Your task to perform on an android device: Open settings on Google Maps Image 0: 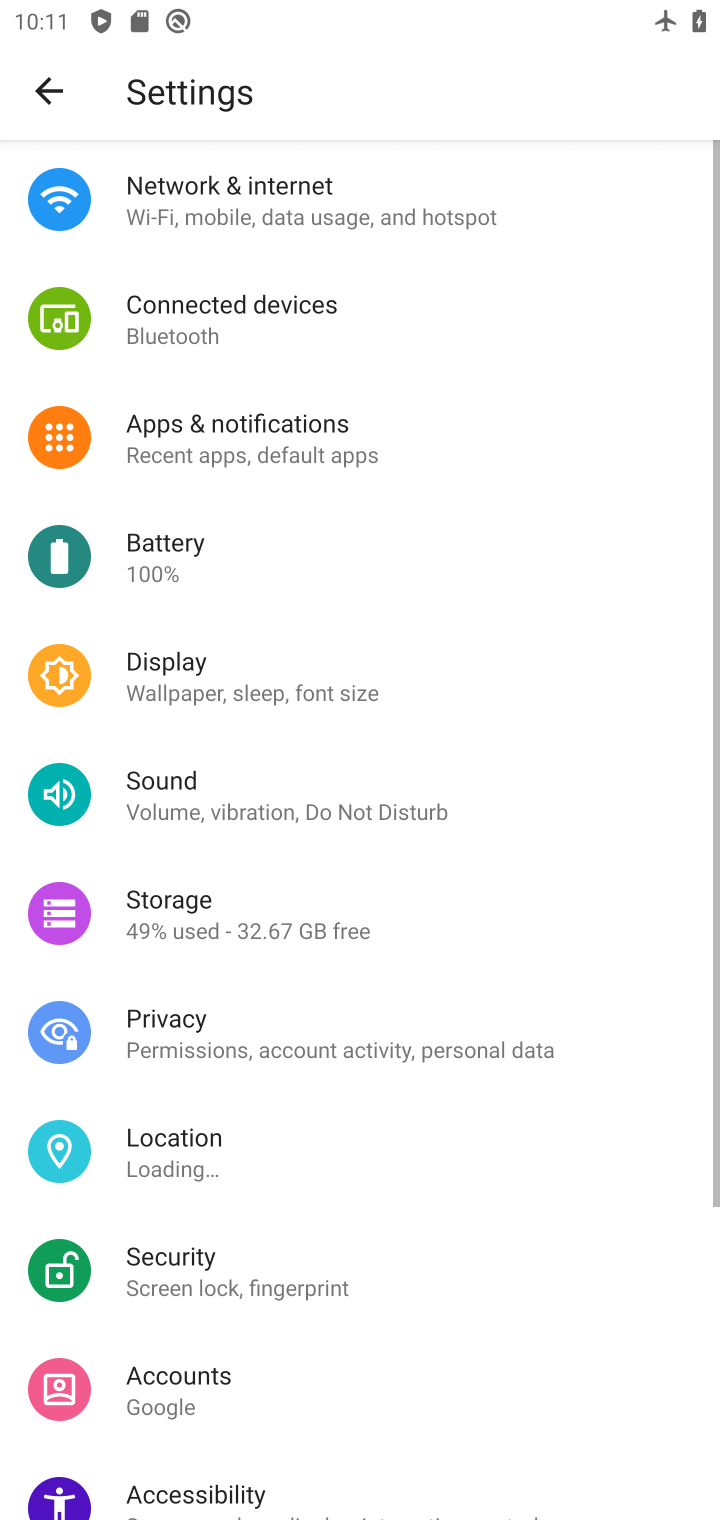
Step 0: drag from (371, 1306) to (516, 541)
Your task to perform on an android device: Open settings on Google Maps Image 1: 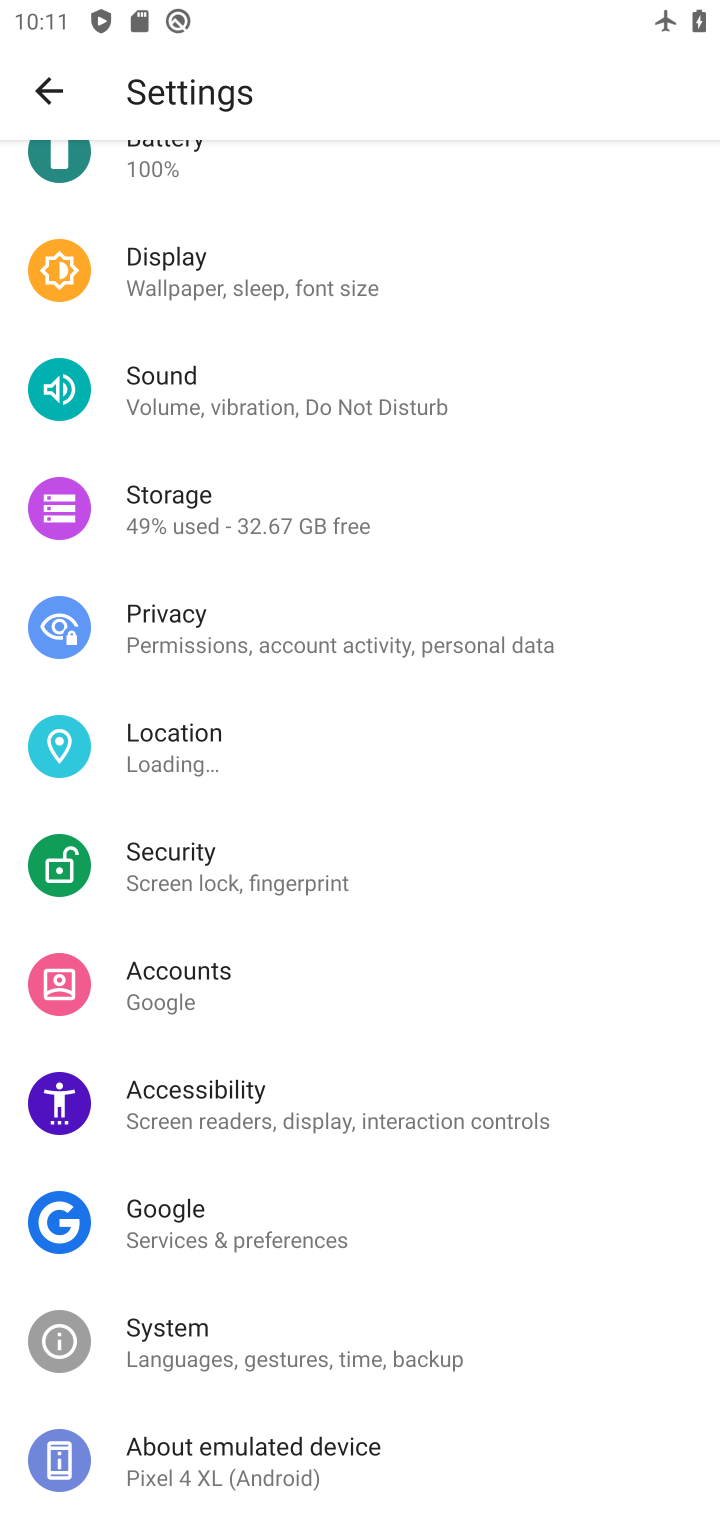
Step 1: press home button
Your task to perform on an android device: Open settings on Google Maps Image 2: 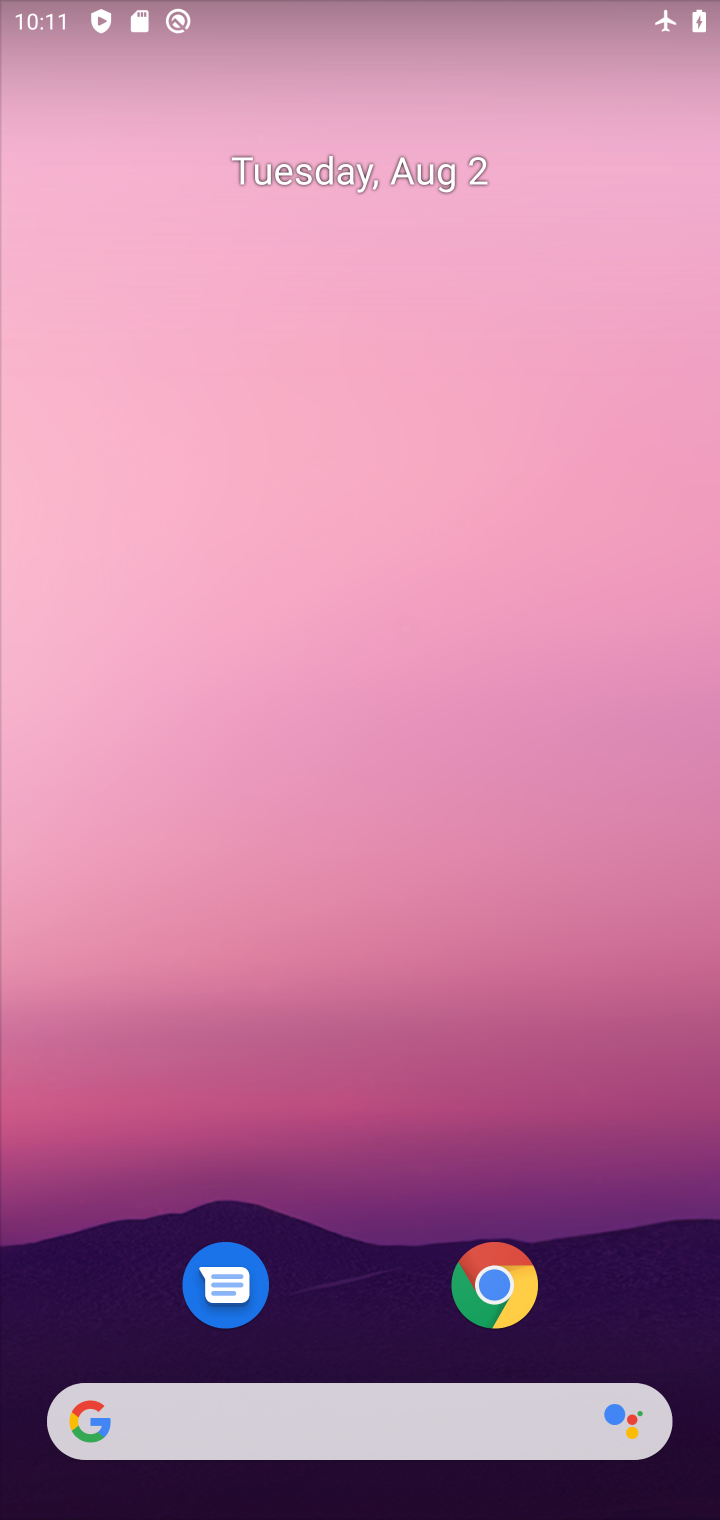
Step 2: drag from (381, 1253) to (583, 272)
Your task to perform on an android device: Open settings on Google Maps Image 3: 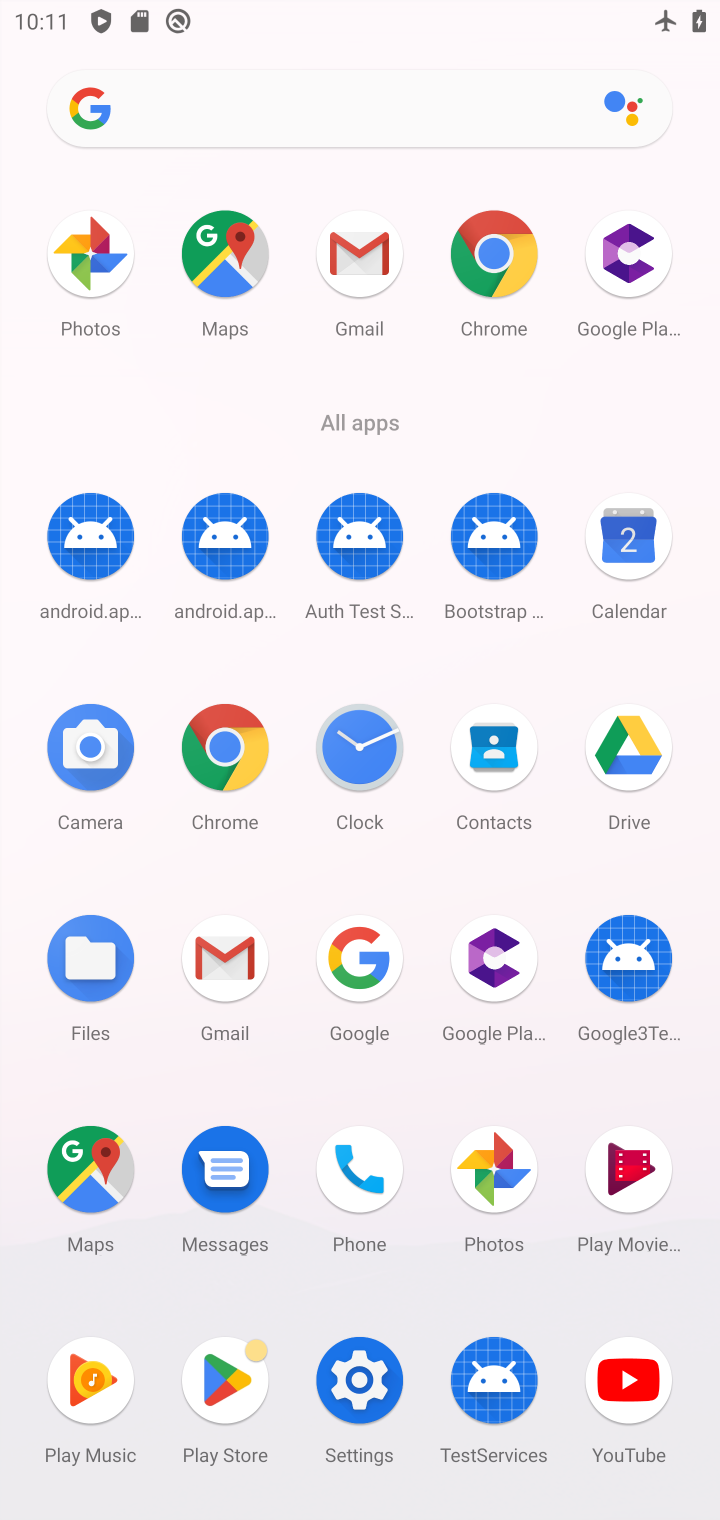
Step 3: click (44, 1170)
Your task to perform on an android device: Open settings on Google Maps Image 4: 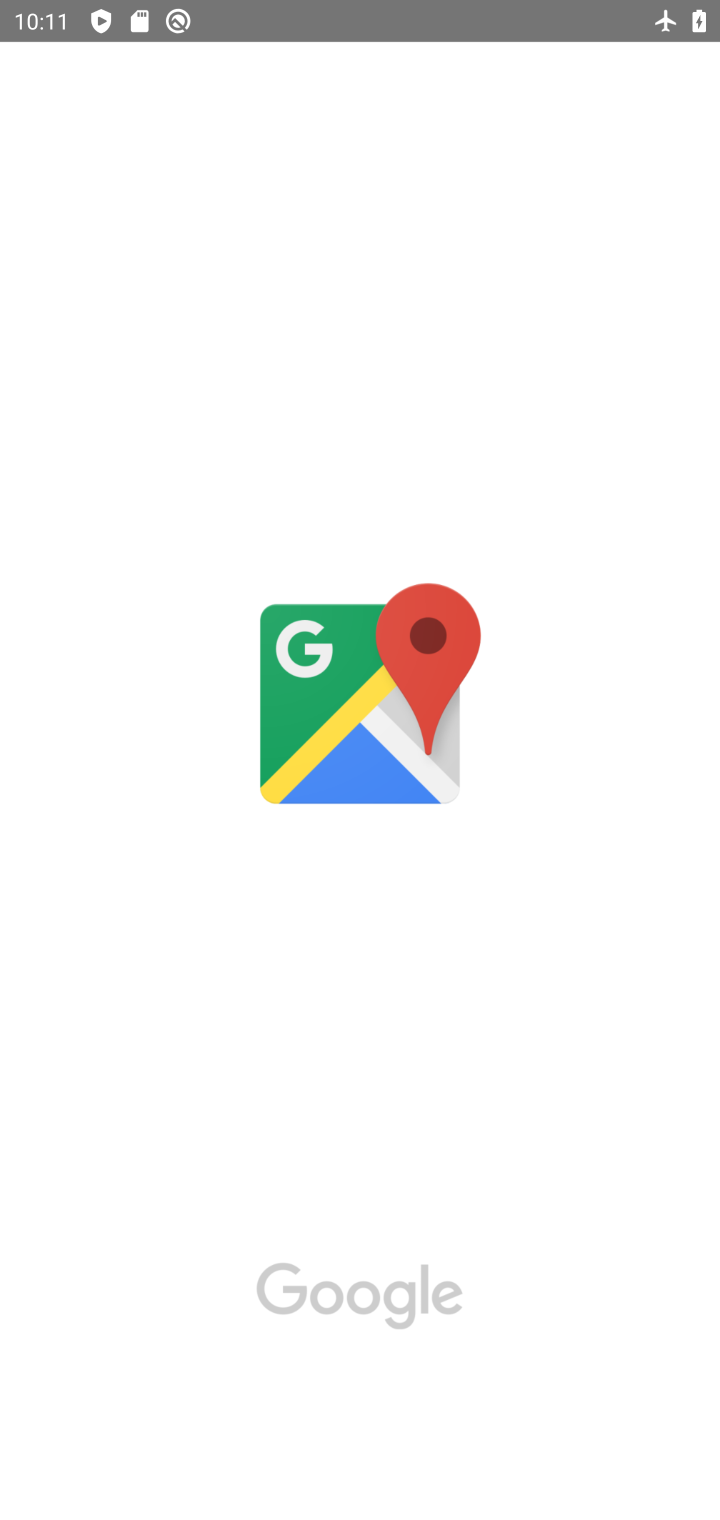
Step 4: drag from (450, 1049) to (511, 212)
Your task to perform on an android device: Open settings on Google Maps Image 5: 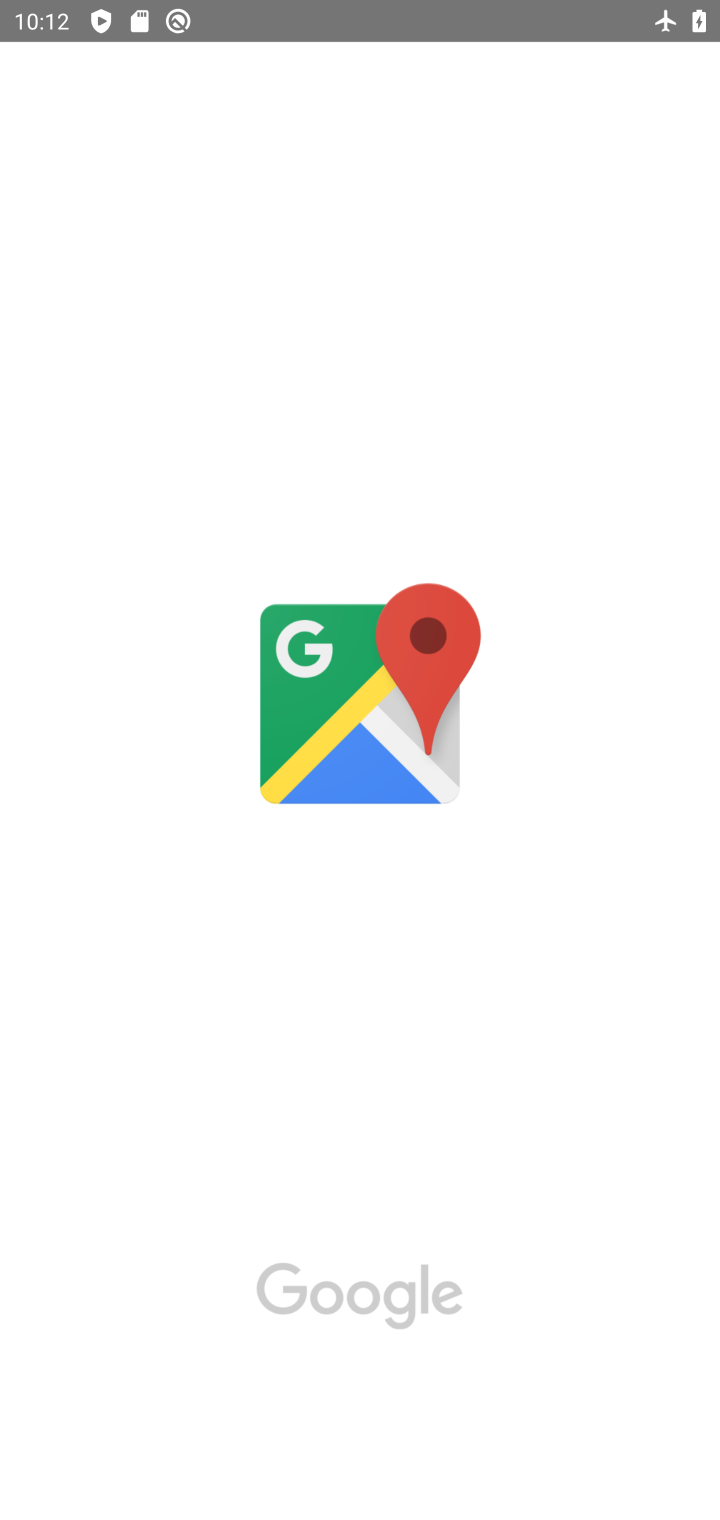
Step 5: drag from (400, 1151) to (408, 690)
Your task to perform on an android device: Open settings on Google Maps Image 6: 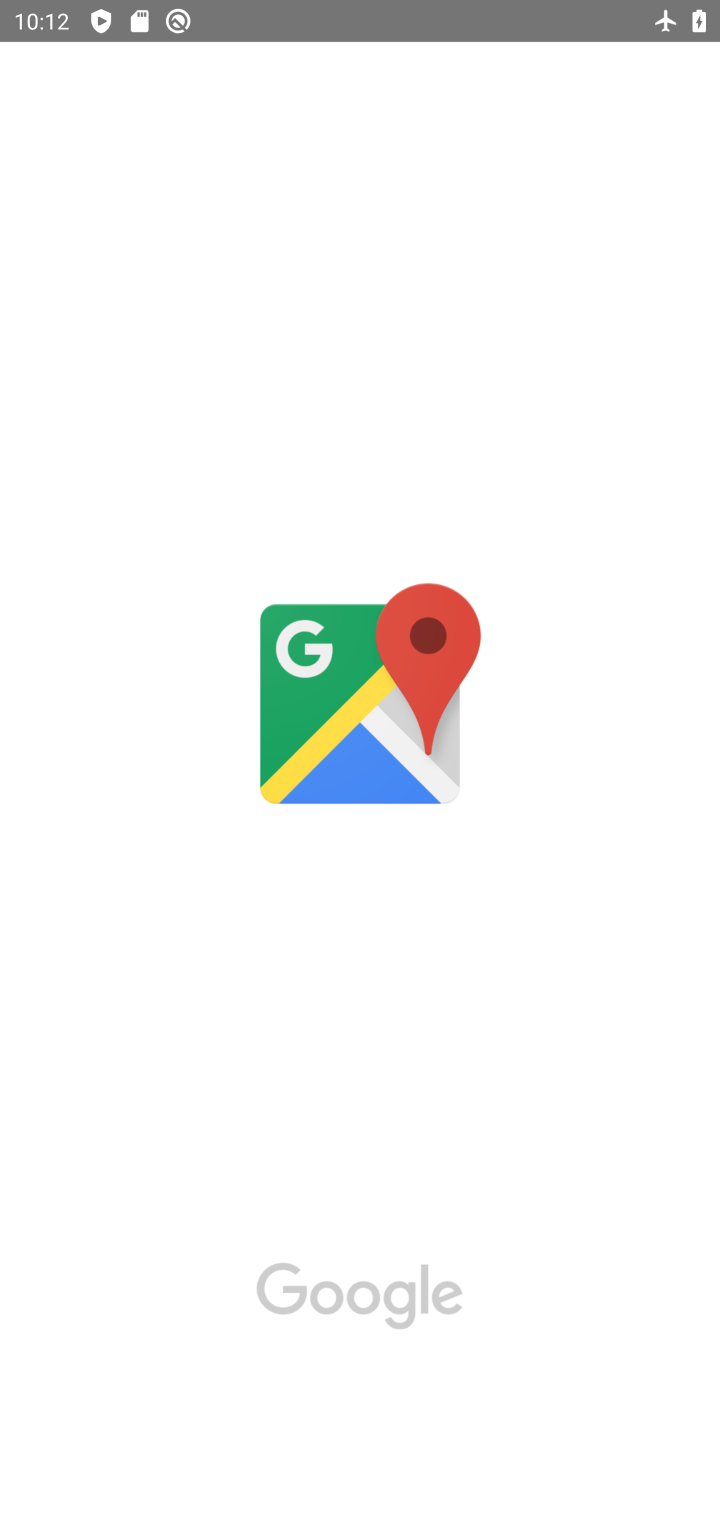
Step 6: drag from (437, 908) to (348, 546)
Your task to perform on an android device: Open settings on Google Maps Image 7: 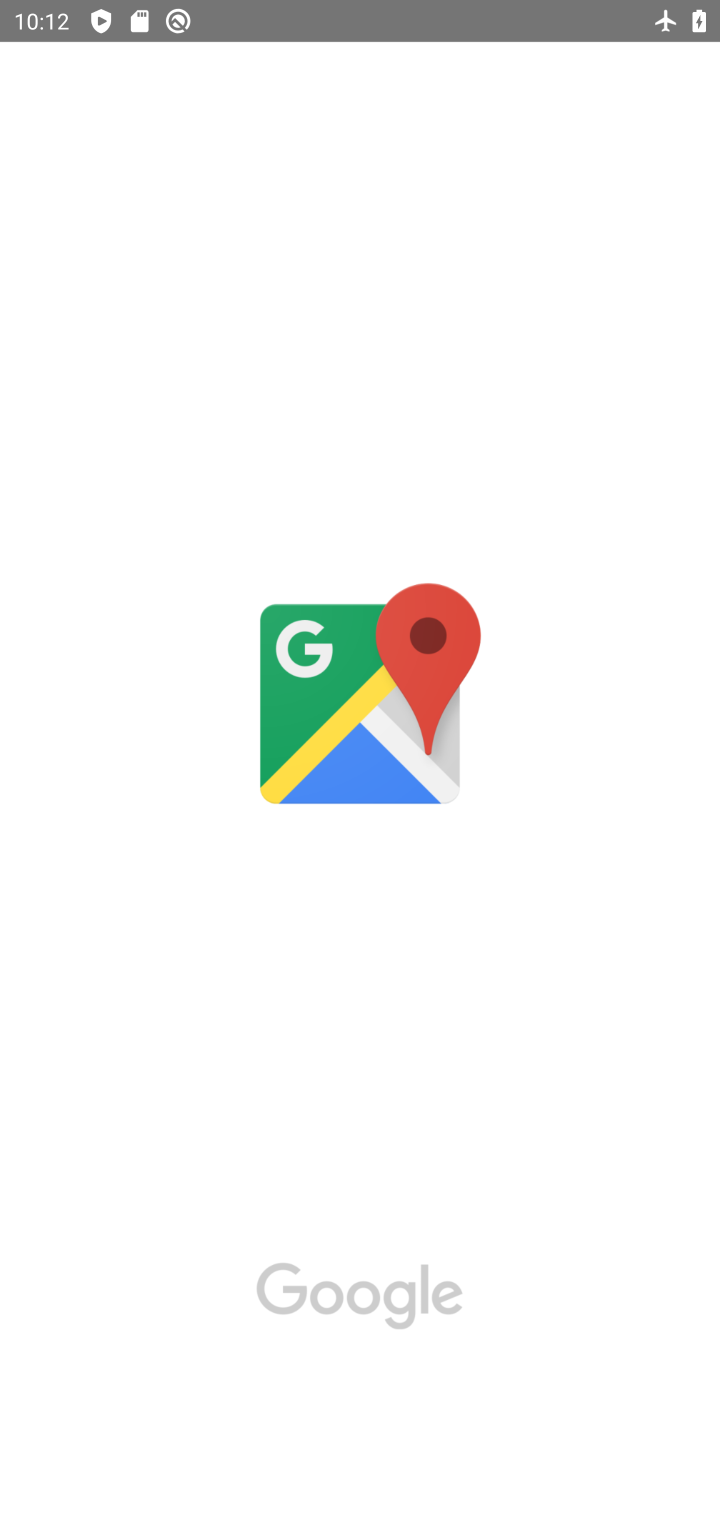
Step 7: drag from (428, 1191) to (434, 707)
Your task to perform on an android device: Open settings on Google Maps Image 8: 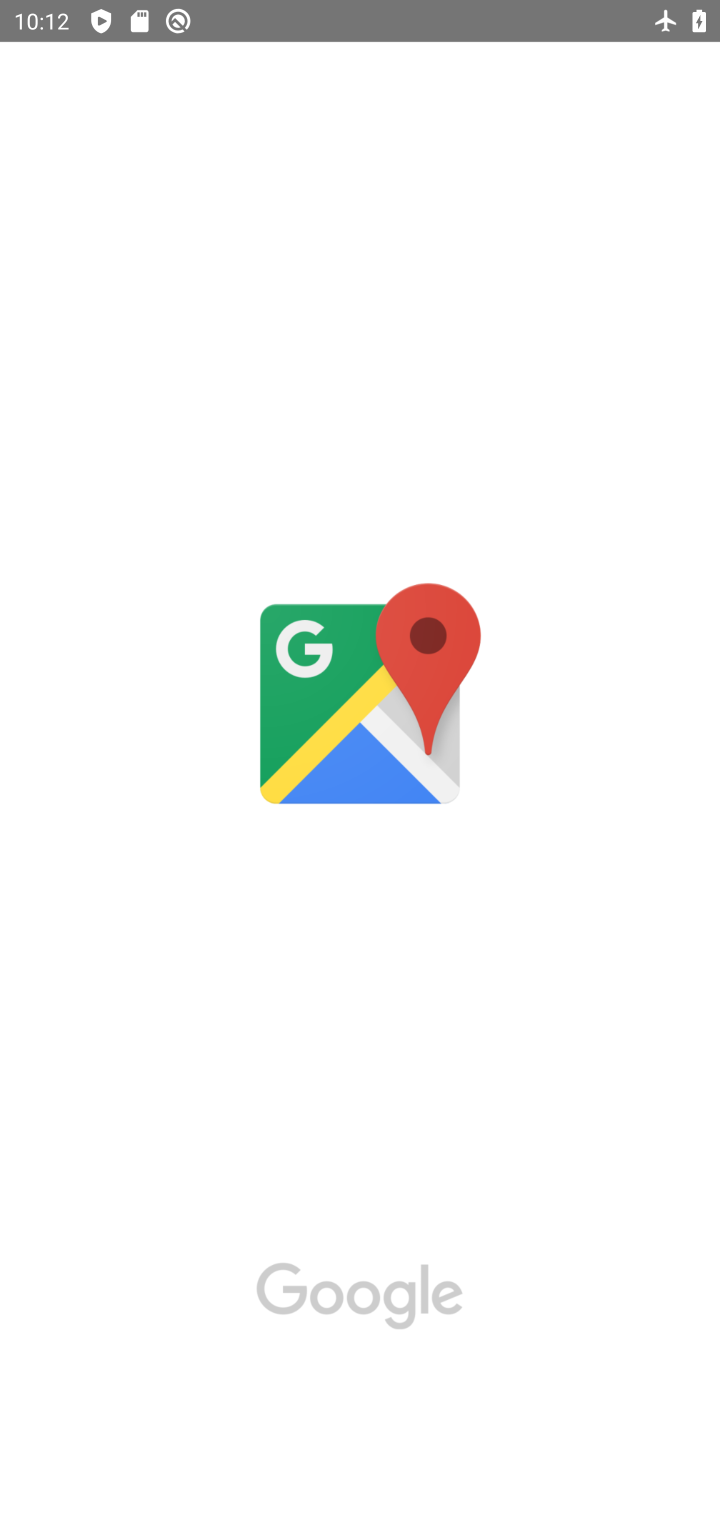
Step 8: click (412, 488)
Your task to perform on an android device: Open settings on Google Maps Image 9: 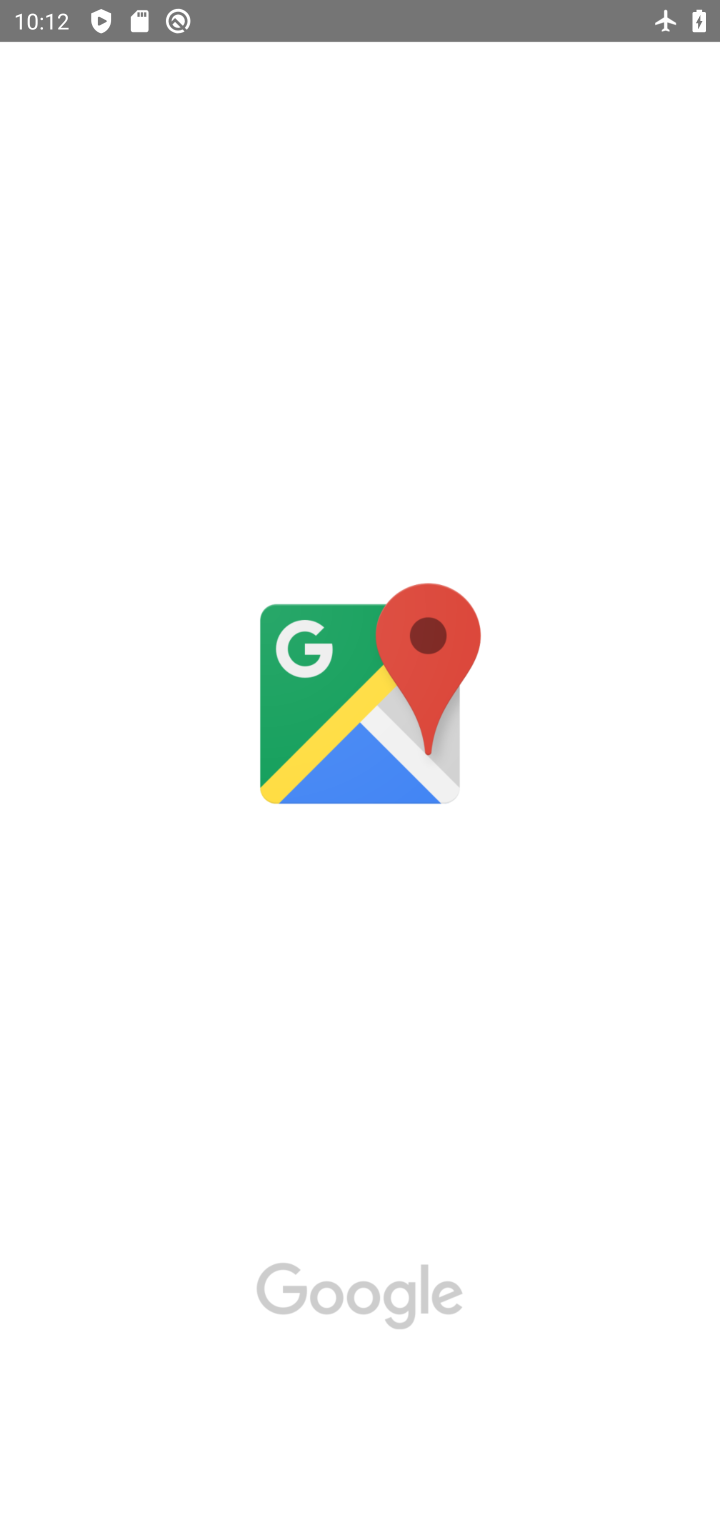
Step 9: drag from (284, 1288) to (444, 511)
Your task to perform on an android device: Open settings on Google Maps Image 10: 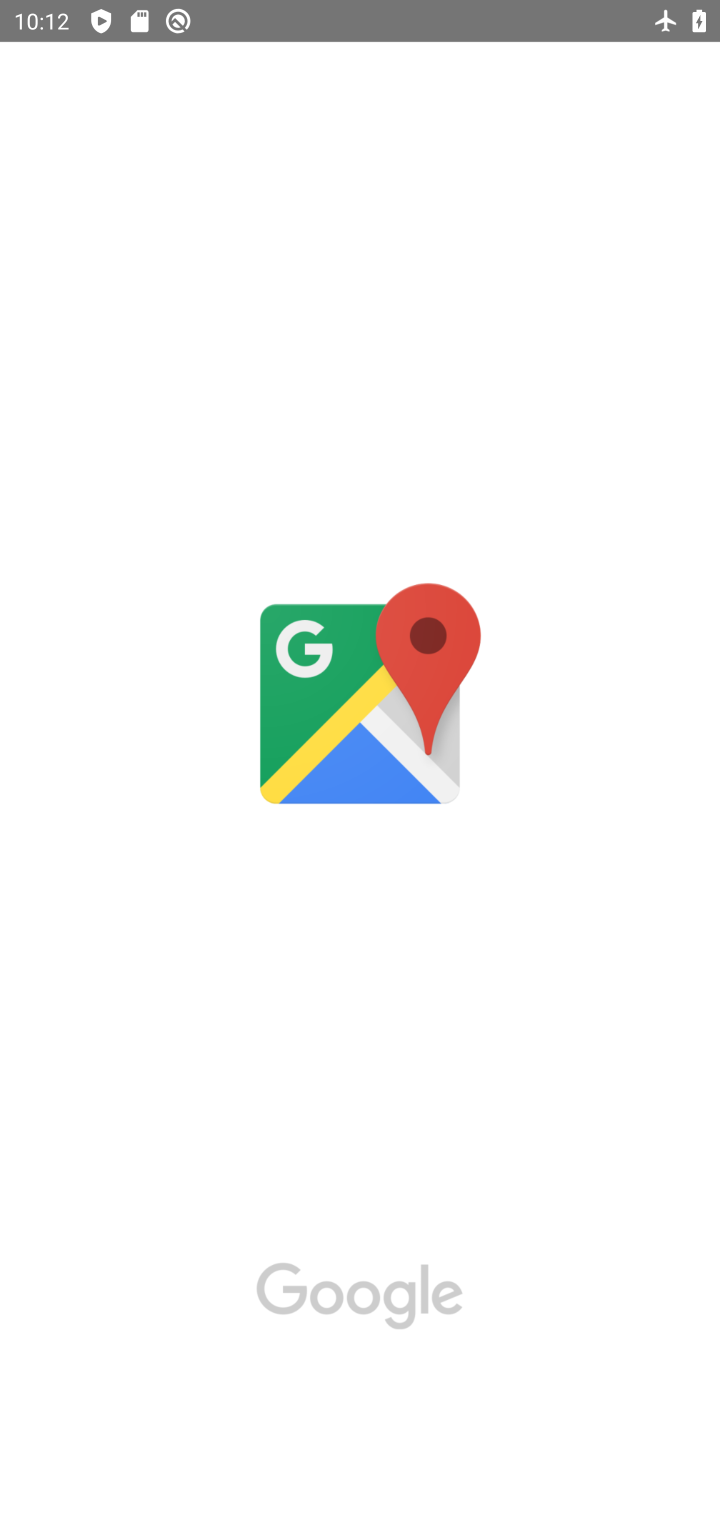
Step 10: click (343, 820)
Your task to perform on an android device: Open settings on Google Maps Image 11: 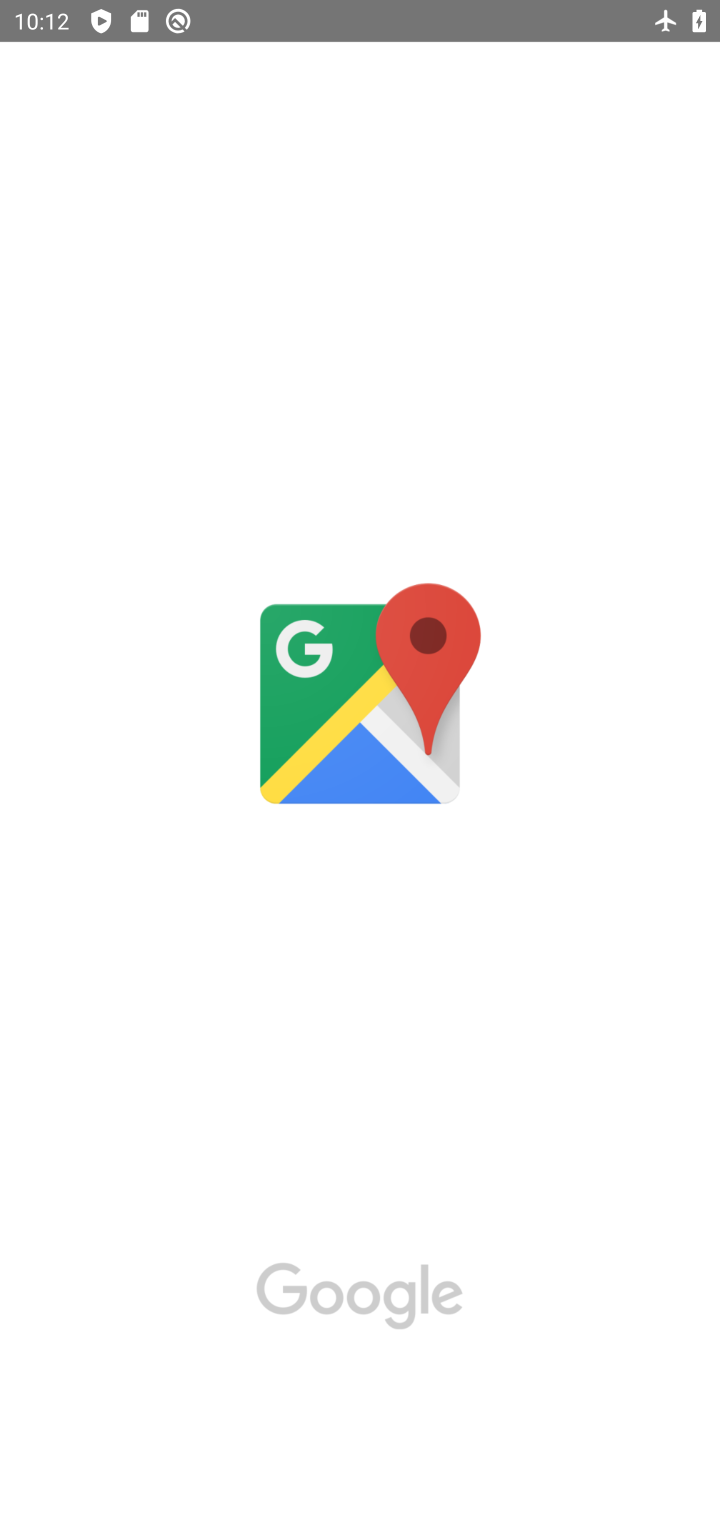
Step 11: click (371, 748)
Your task to perform on an android device: Open settings on Google Maps Image 12: 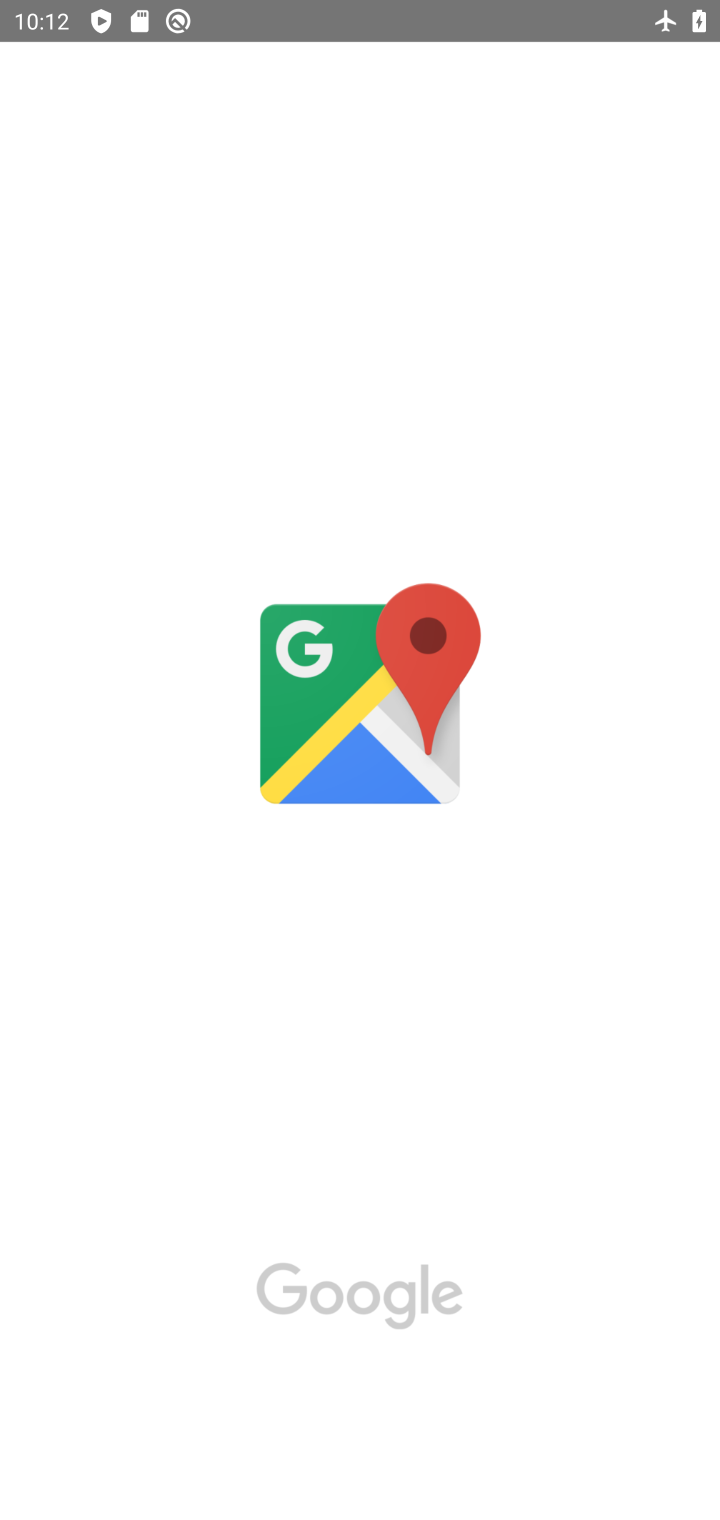
Step 12: click (436, 482)
Your task to perform on an android device: Open settings on Google Maps Image 13: 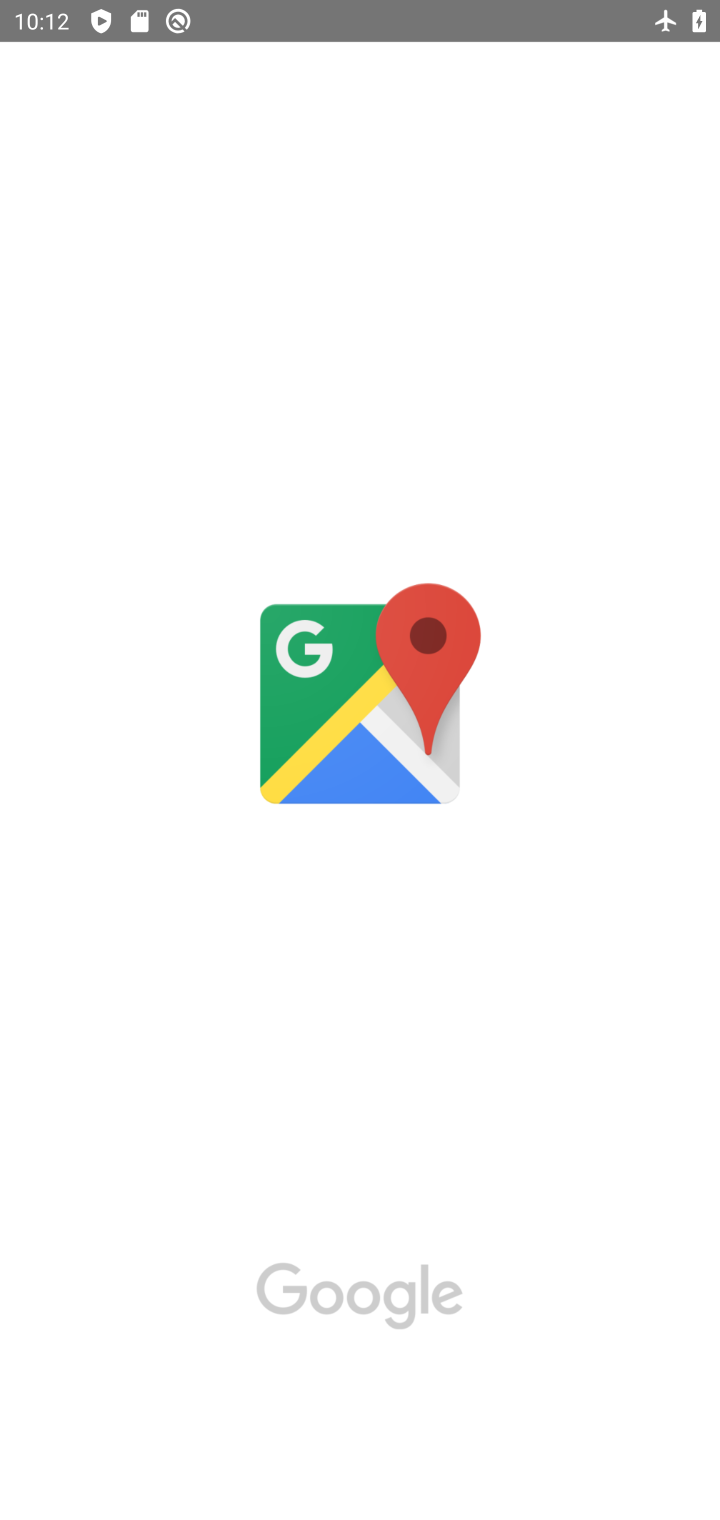
Step 13: click (302, 890)
Your task to perform on an android device: Open settings on Google Maps Image 14: 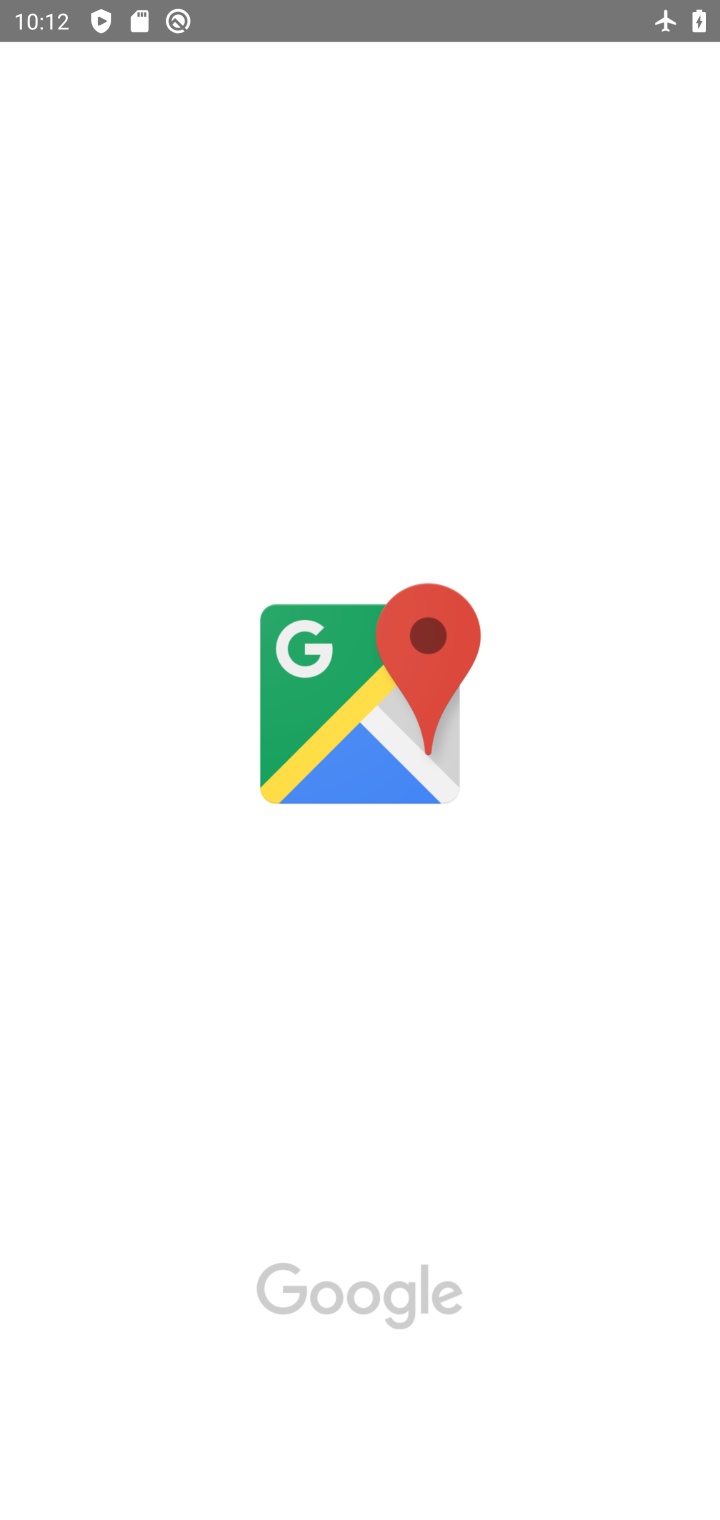
Step 14: click (334, 483)
Your task to perform on an android device: Open settings on Google Maps Image 15: 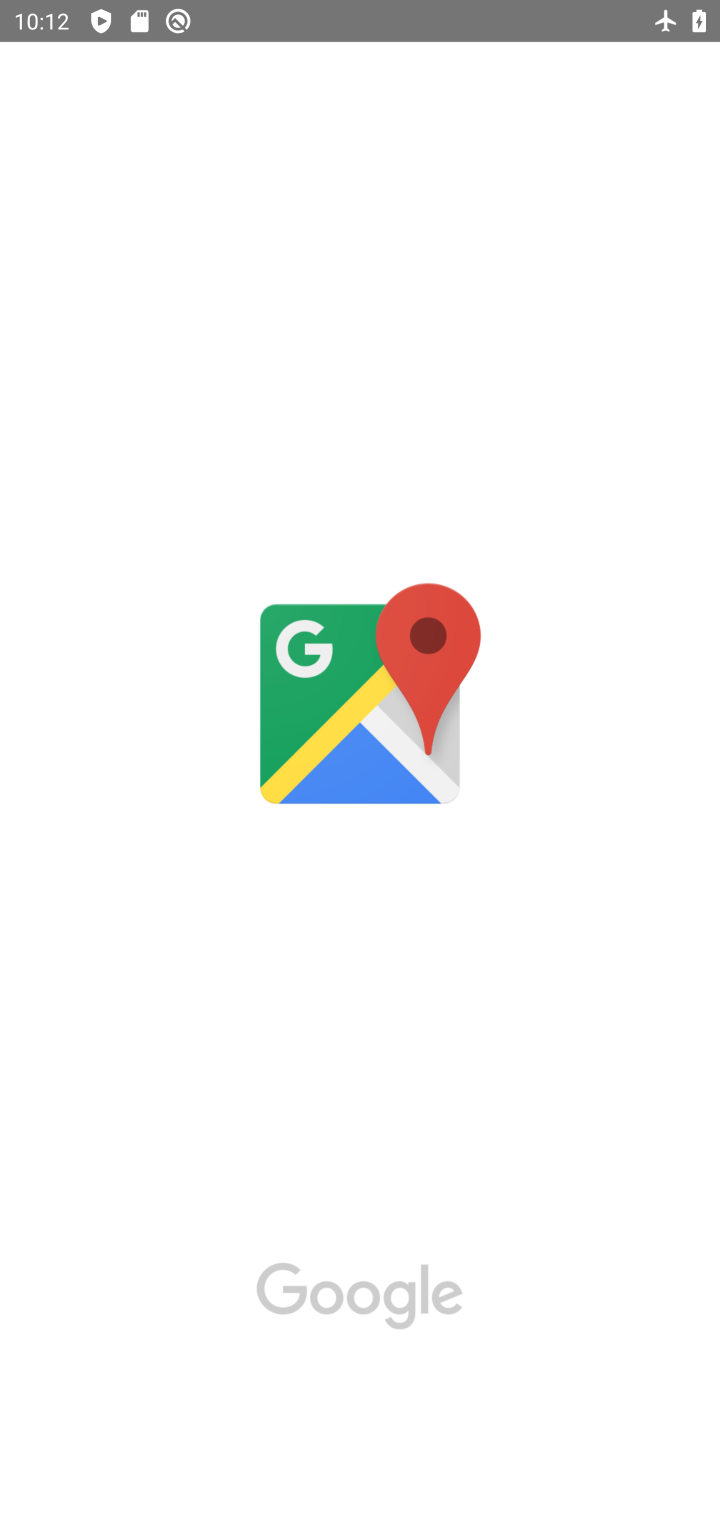
Step 15: click (383, 393)
Your task to perform on an android device: Open settings on Google Maps Image 16: 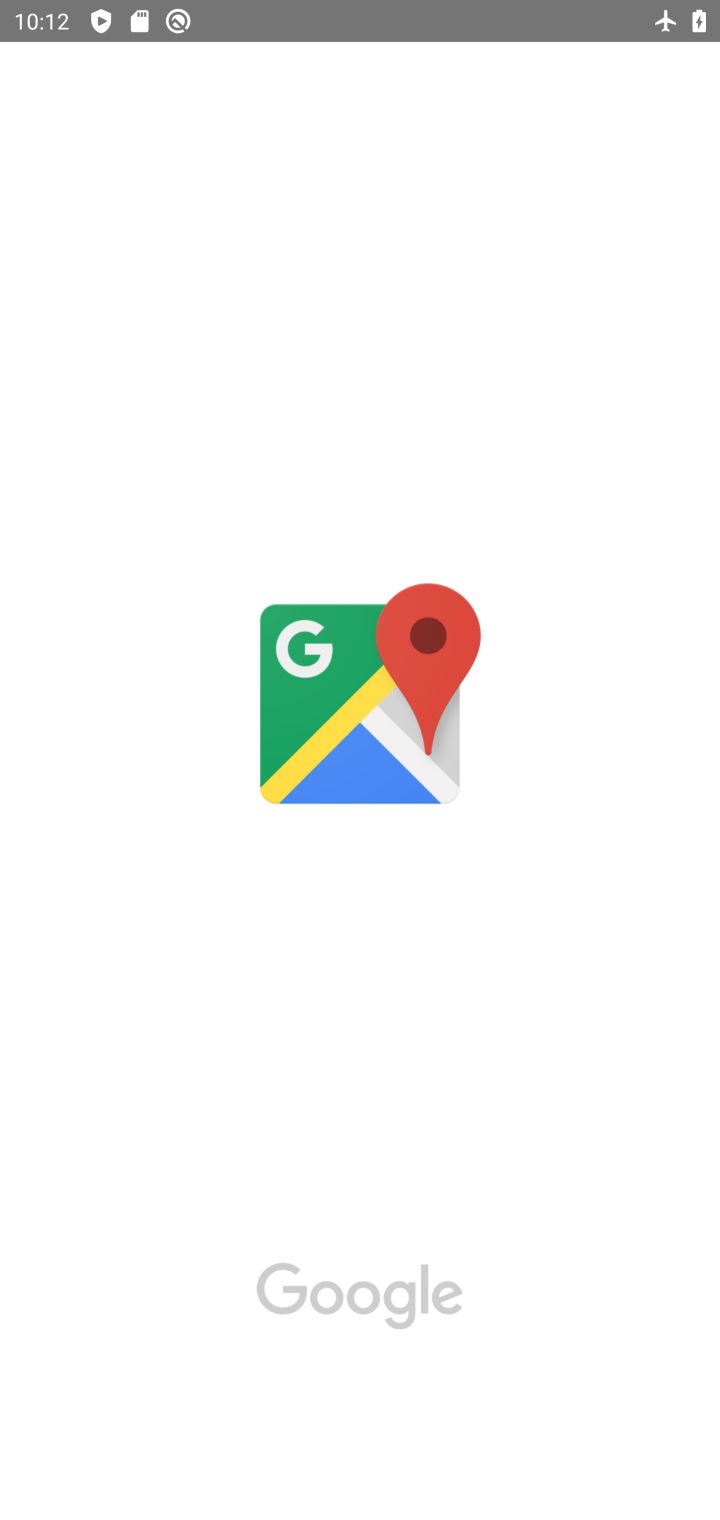
Step 16: drag from (478, 1157) to (472, 736)
Your task to perform on an android device: Open settings on Google Maps Image 17: 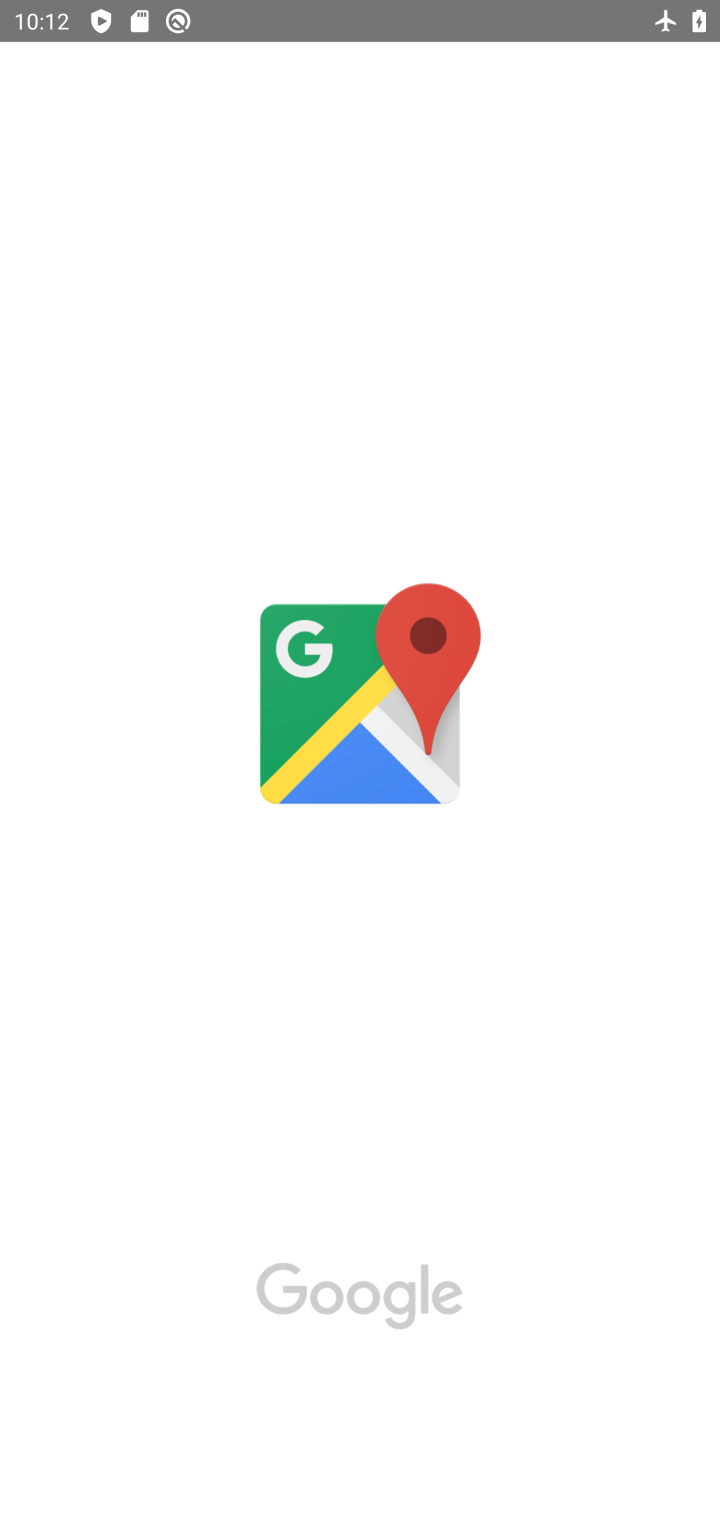
Step 17: click (524, 463)
Your task to perform on an android device: Open settings on Google Maps Image 18: 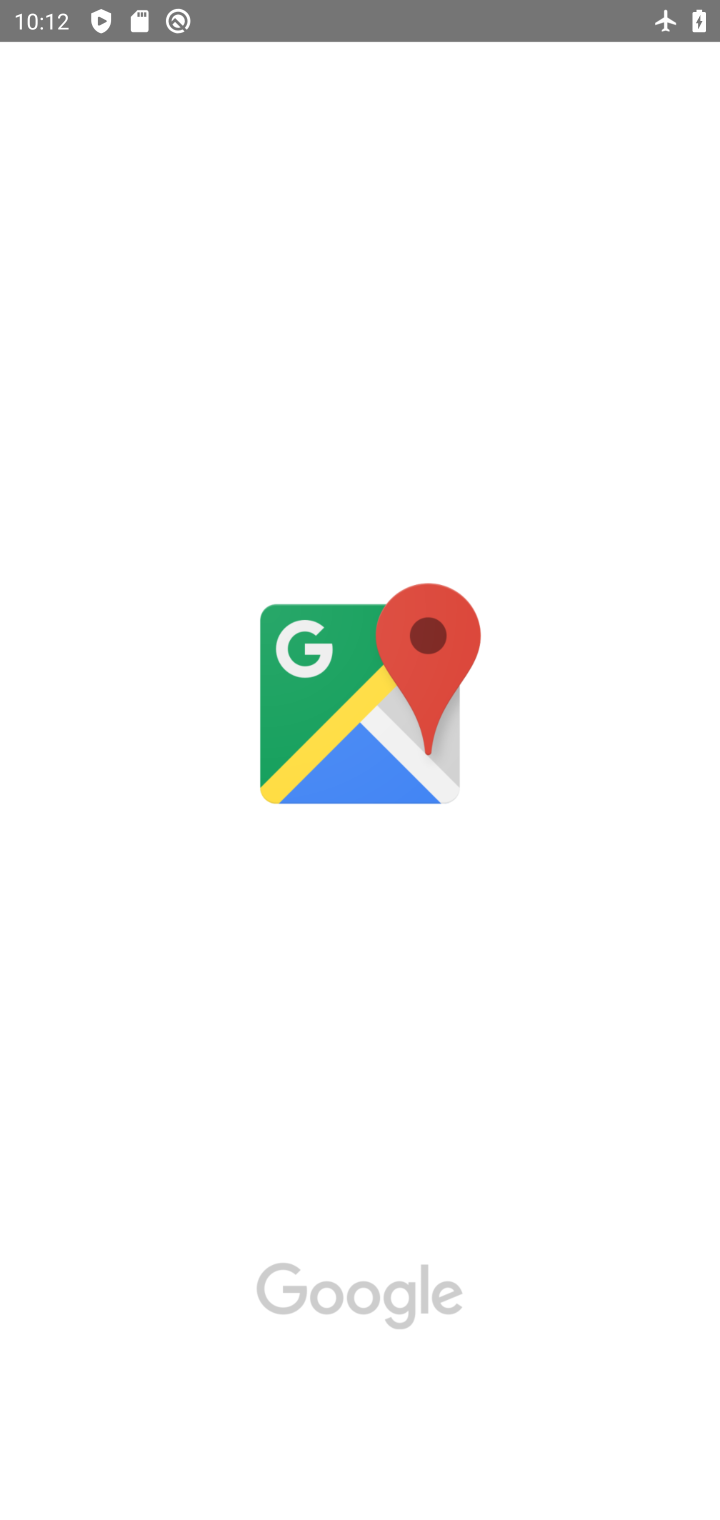
Step 18: task complete